Your task to perform on an android device: make emails show in primary in the gmail app Image 0: 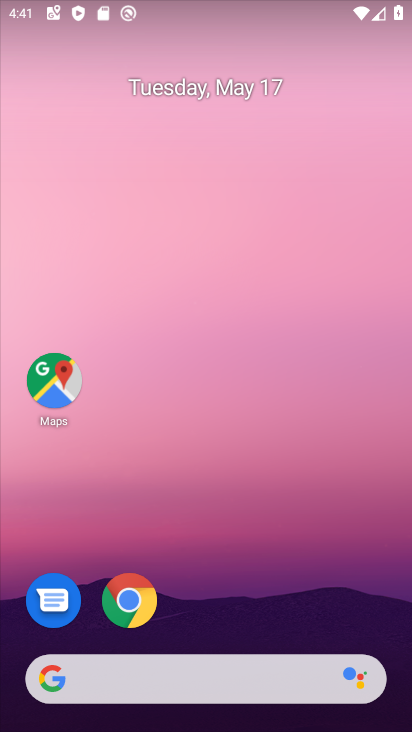
Step 0: drag from (191, 555) to (245, 106)
Your task to perform on an android device: make emails show in primary in the gmail app Image 1: 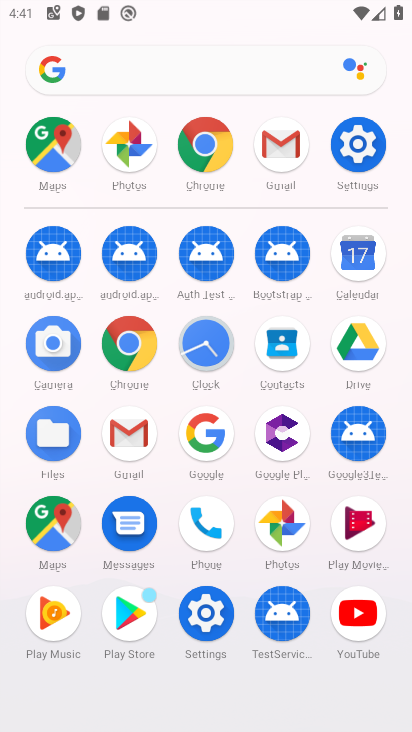
Step 1: click (131, 439)
Your task to perform on an android device: make emails show in primary in the gmail app Image 2: 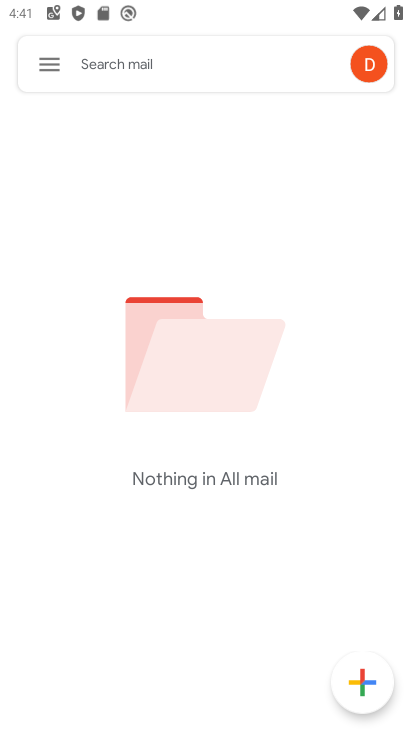
Step 2: click (49, 63)
Your task to perform on an android device: make emails show in primary in the gmail app Image 3: 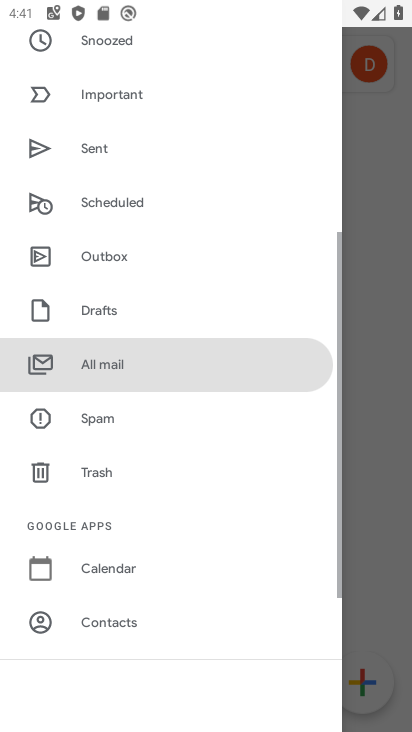
Step 3: drag from (121, 605) to (166, 41)
Your task to perform on an android device: make emails show in primary in the gmail app Image 4: 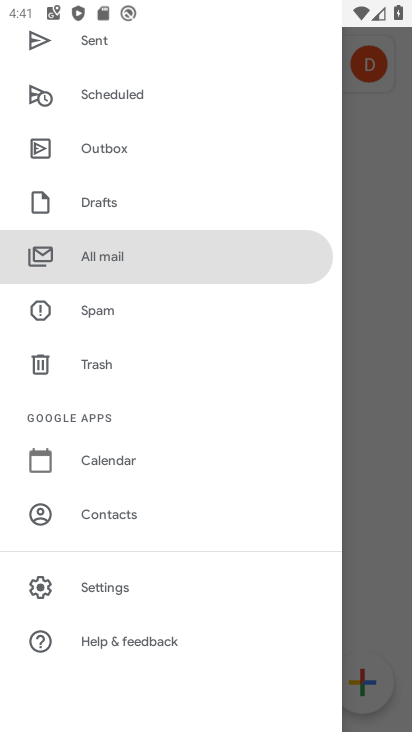
Step 4: click (91, 590)
Your task to perform on an android device: make emails show in primary in the gmail app Image 5: 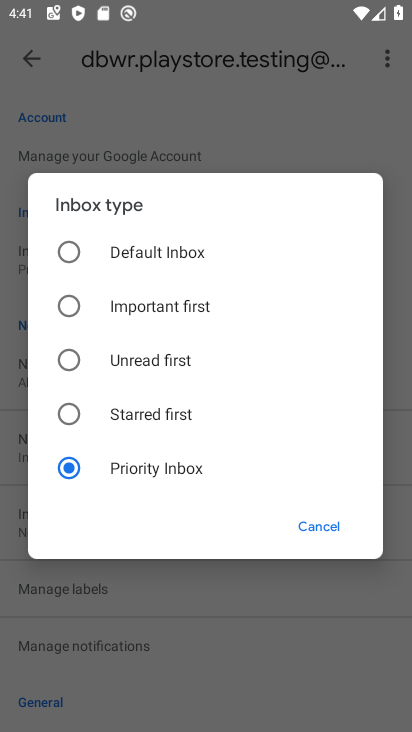
Step 5: click (107, 250)
Your task to perform on an android device: make emails show in primary in the gmail app Image 6: 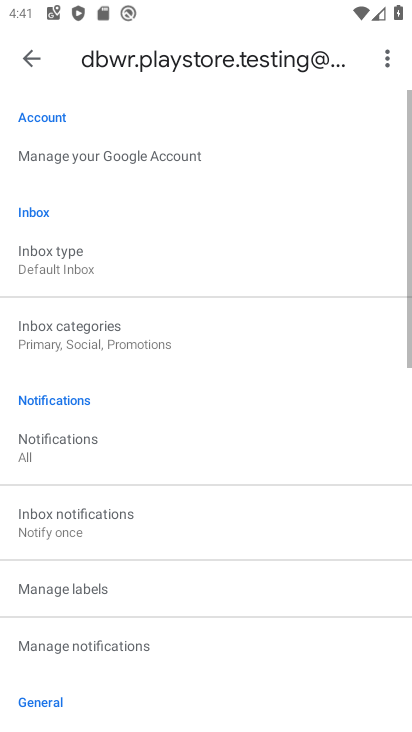
Step 6: click (70, 334)
Your task to perform on an android device: make emails show in primary in the gmail app Image 7: 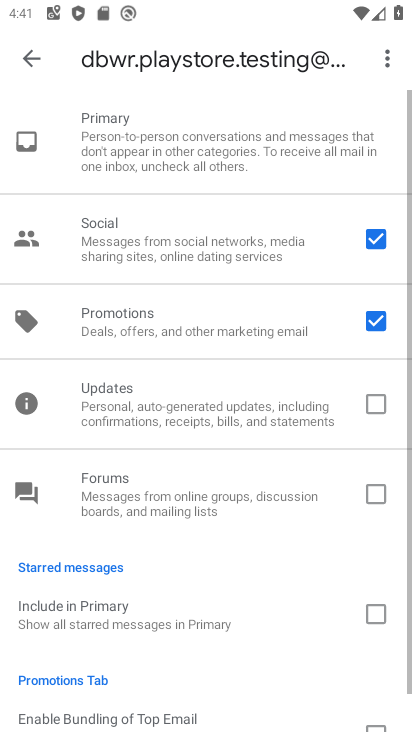
Step 7: click (375, 313)
Your task to perform on an android device: make emails show in primary in the gmail app Image 8: 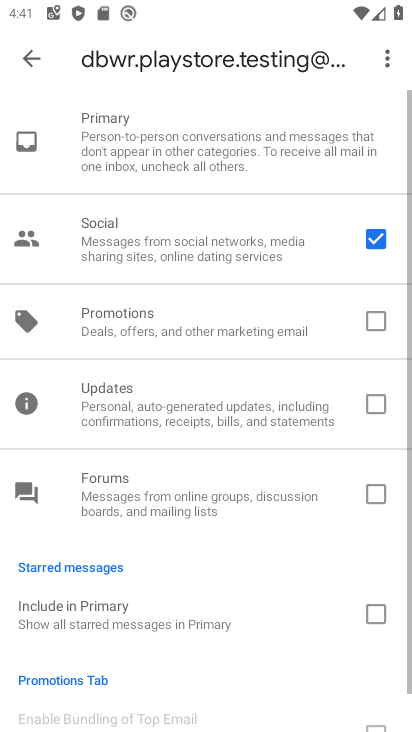
Step 8: click (364, 238)
Your task to perform on an android device: make emails show in primary in the gmail app Image 9: 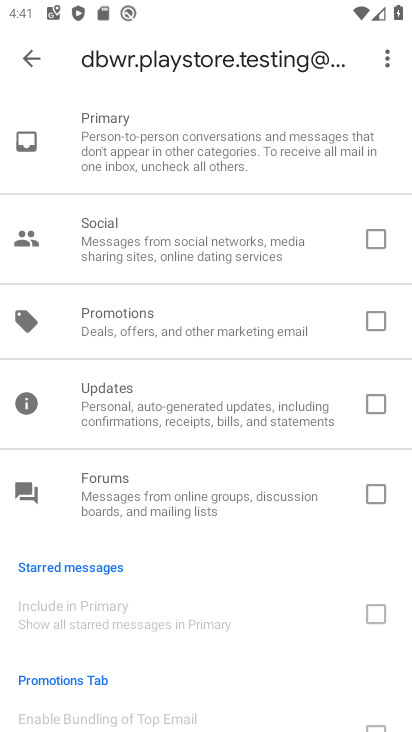
Step 9: task complete